Your task to perform on an android device: check data usage Image 0: 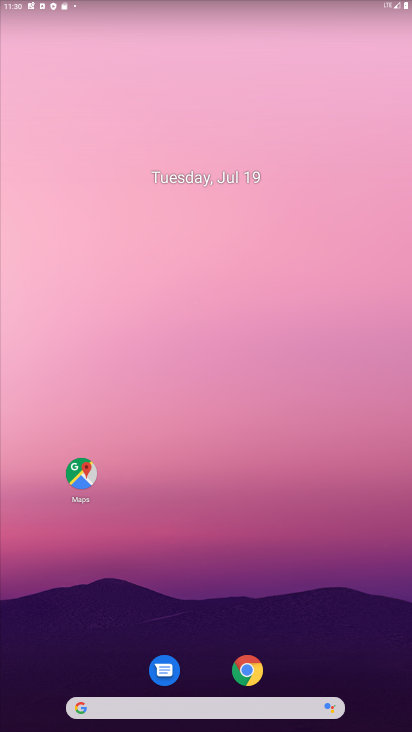
Step 0: drag from (264, 713) to (243, 93)
Your task to perform on an android device: check data usage Image 1: 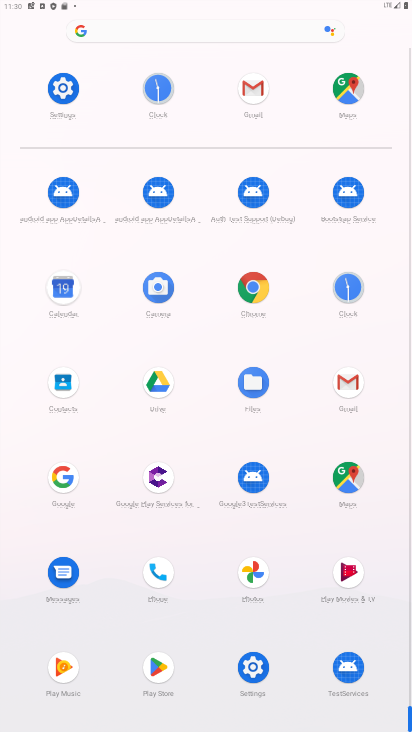
Step 1: click (63, 96)
Your task to perform on an android device: check data usage Image 2: 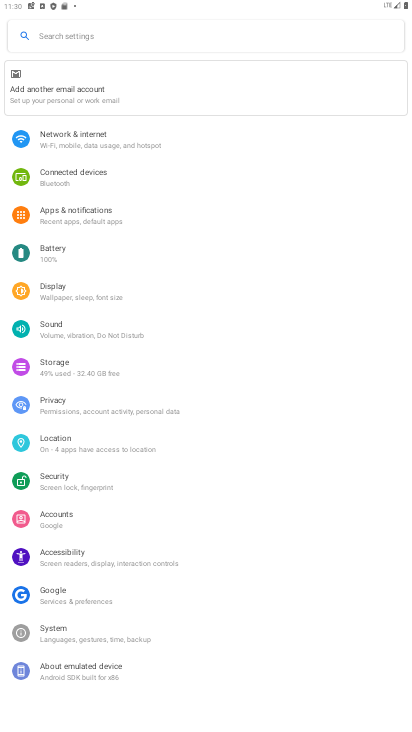
Step 2: click (98, 139)
Your task to perform on an android device: check data usage Image 3: 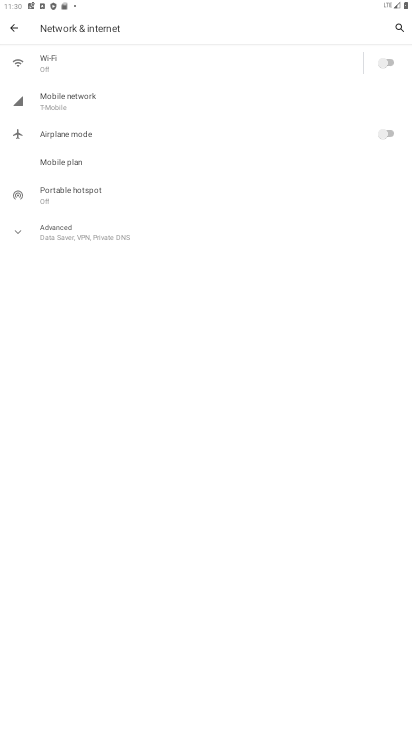
Step 3: click (98, 98)
Your task to perform on an android device: check data usage Image 4: 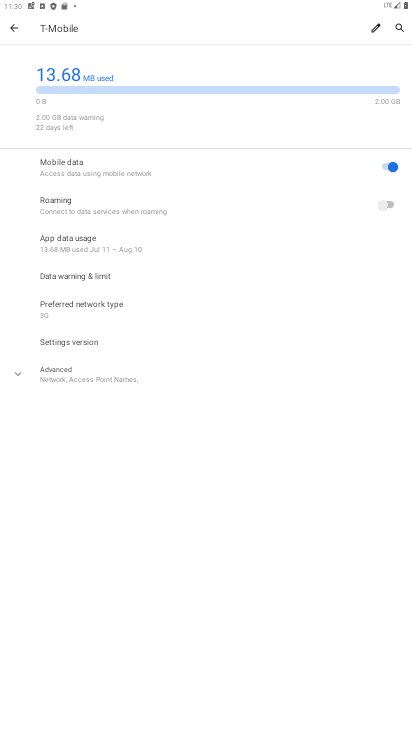
Step 4: task complete